Your task to perform on an android device: Open my contact list Image 0: 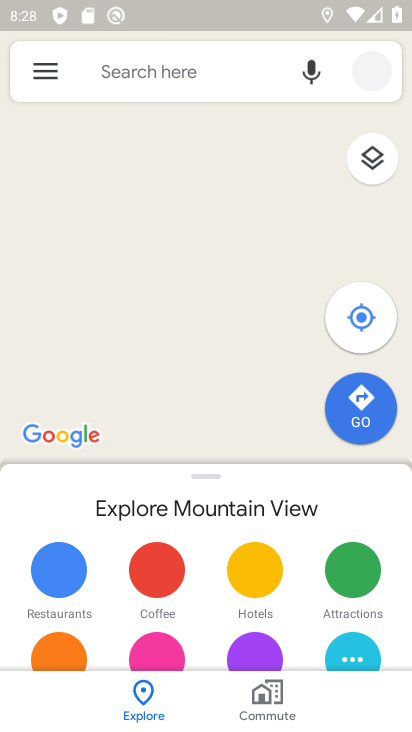
Step 0: press home button
Your task to perform on an android device: Open my contact list Image 1: 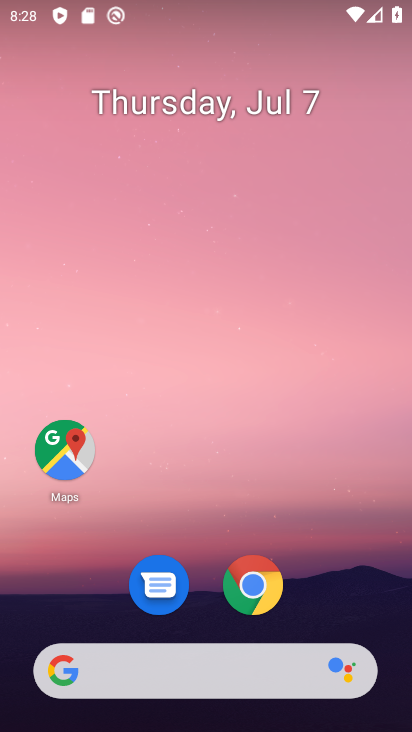
Step 1: drag from (204, 503) to (211, 12)
Your task to perform on an android device: Open my contact list Image 2: 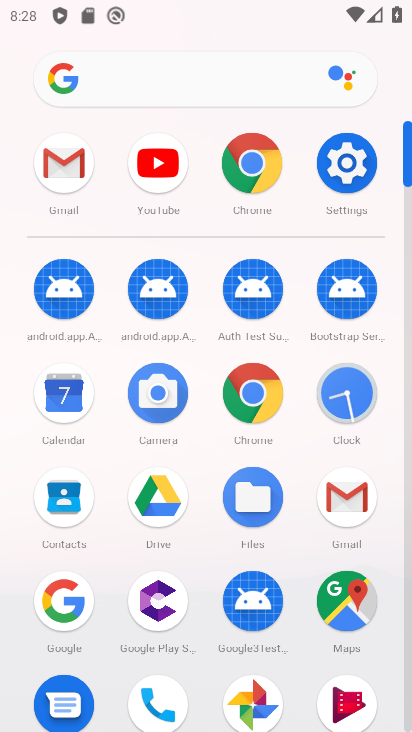
Step 2: click (76, 506)
Your task to perform on an android device: Open my contact list Image 3: 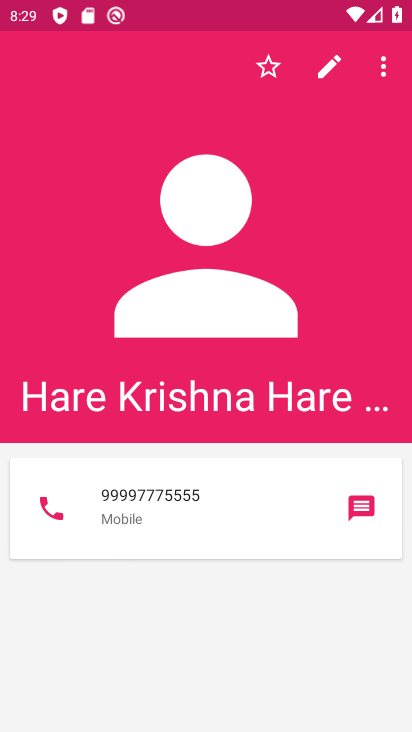
Step 3: task complete